Your task to perform on an android device: Open my contact list Image 0: 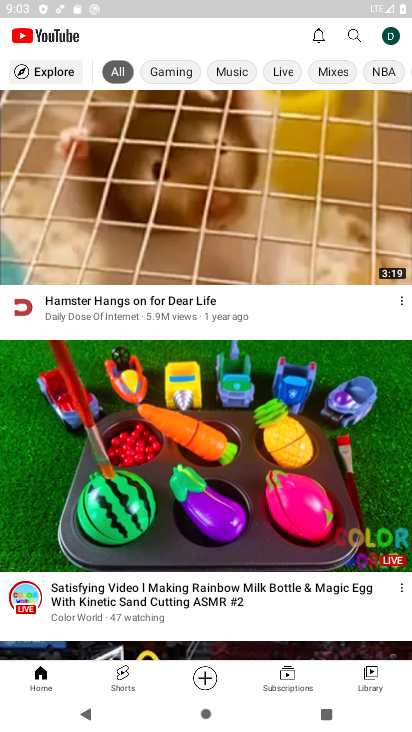
Step 0: press home button
Your task to perform on an android device: Open my contact list Image 1: 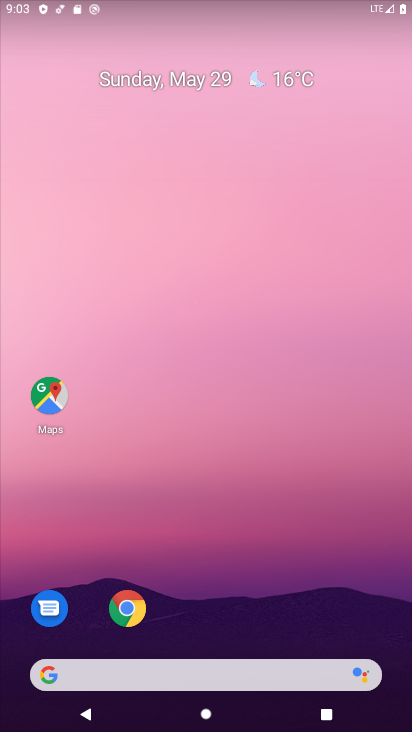
Step 1: drag from (210, 614) to (222, 25)
Your task to perform on an android device: Open my contact list Image 2: 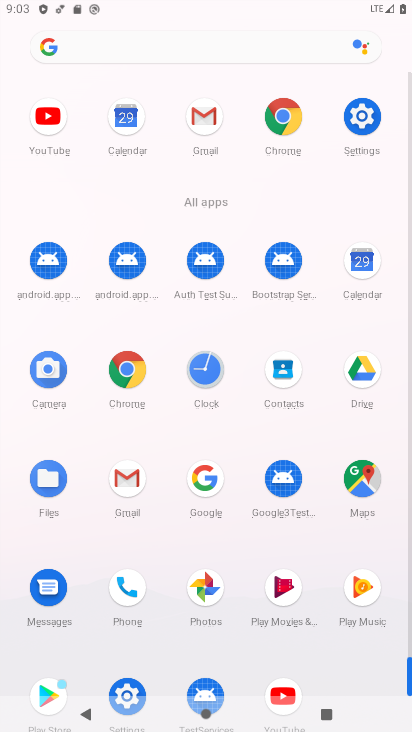
Step 2: click (278, 403)
Your task to perform on an android device: Open my contact list Image 3: 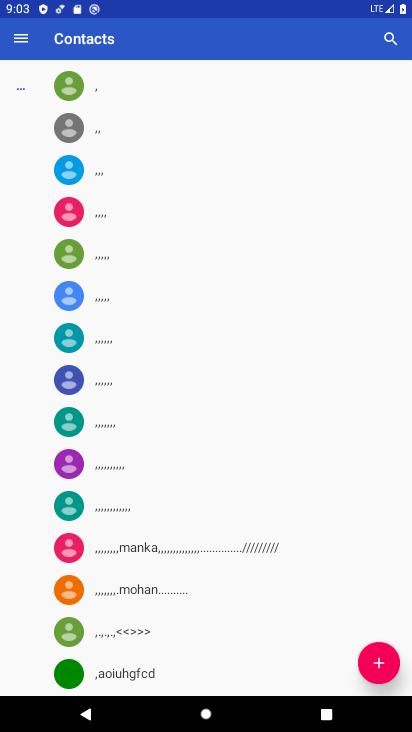
Step 3: task complete